Your task to perform on an android device: delete browsing data in the chrome app Image 0: 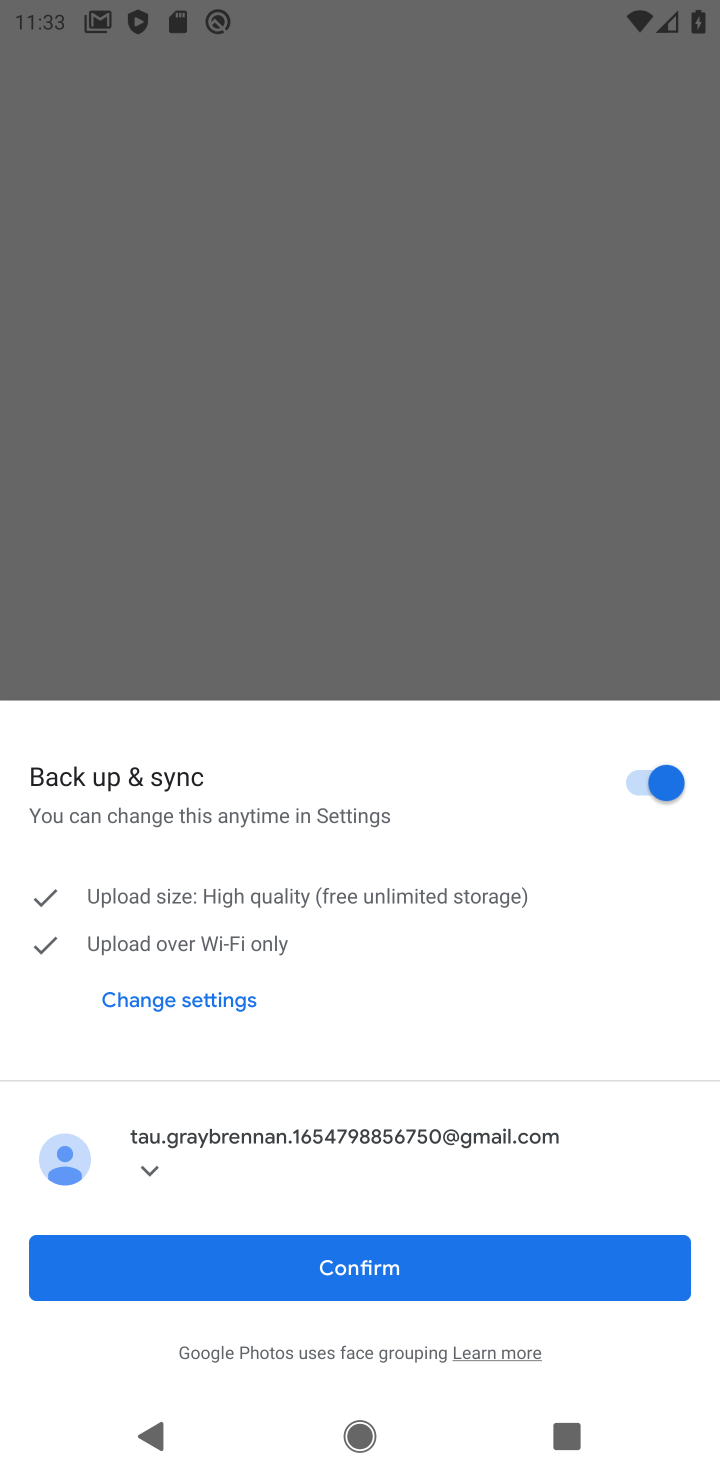
Step 0: press home button
Your task to perform on an android device: delete browsing data in the chrome app Image 1: 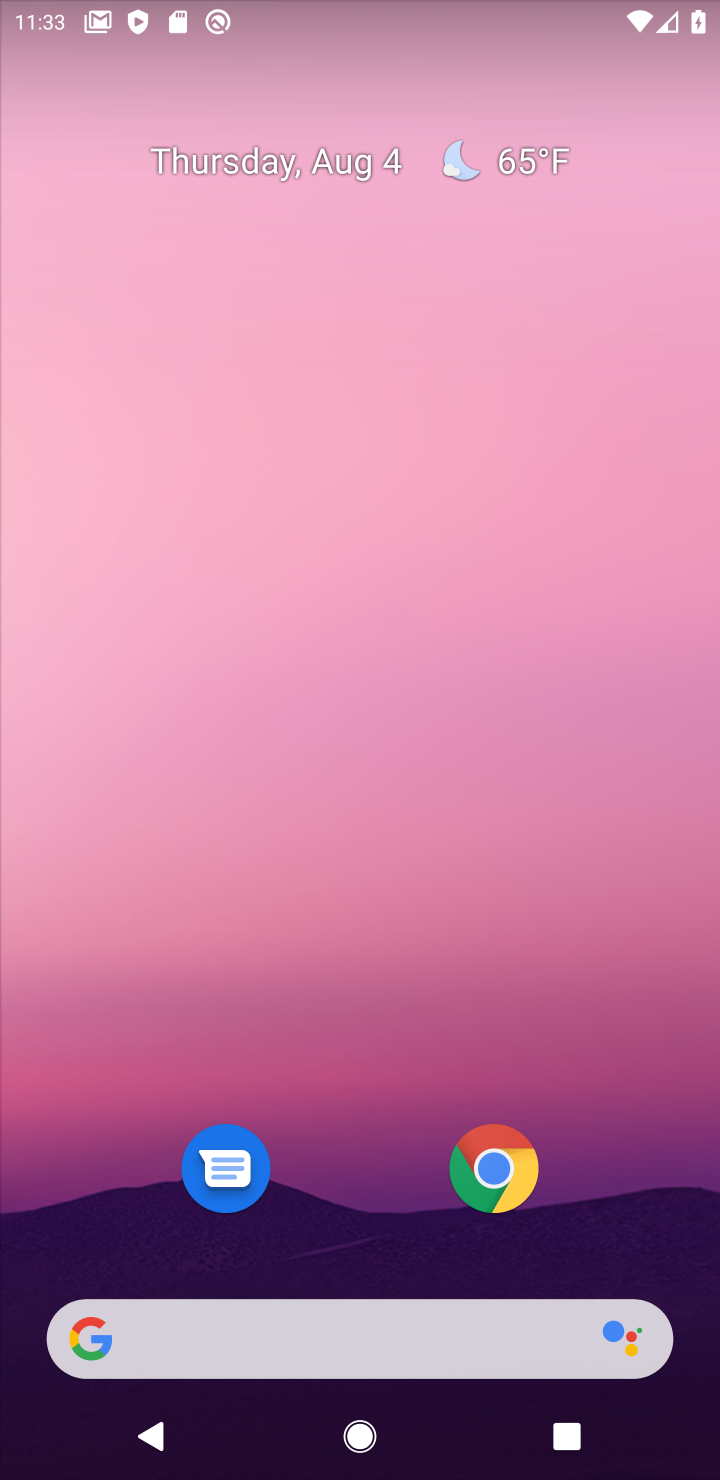
Step 1: click (498, 1172)
Your task to perform on an android device: delete browsing data in the chrome app Image 2: 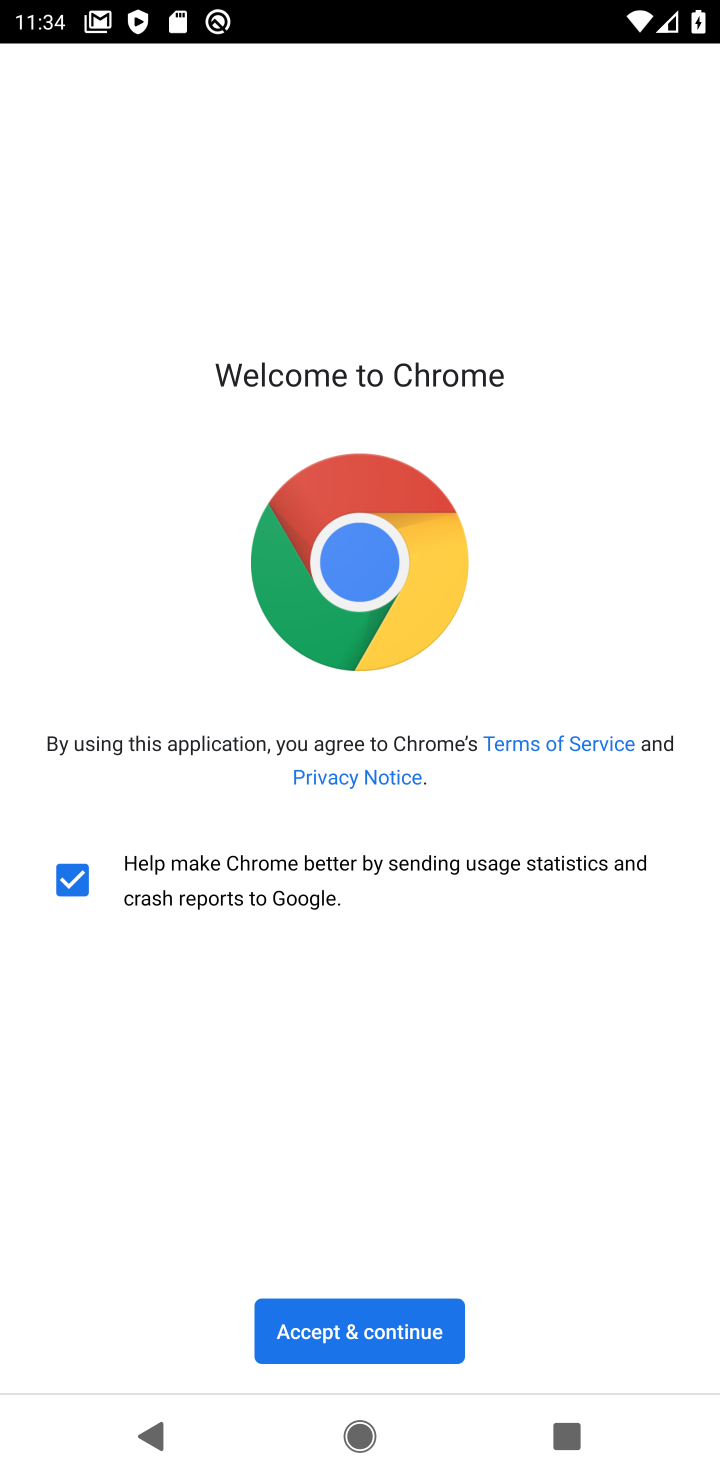
Step 2: click (411, 1338)
Your task to perform on an android device: delete browsing data in the chrome app Image 3: 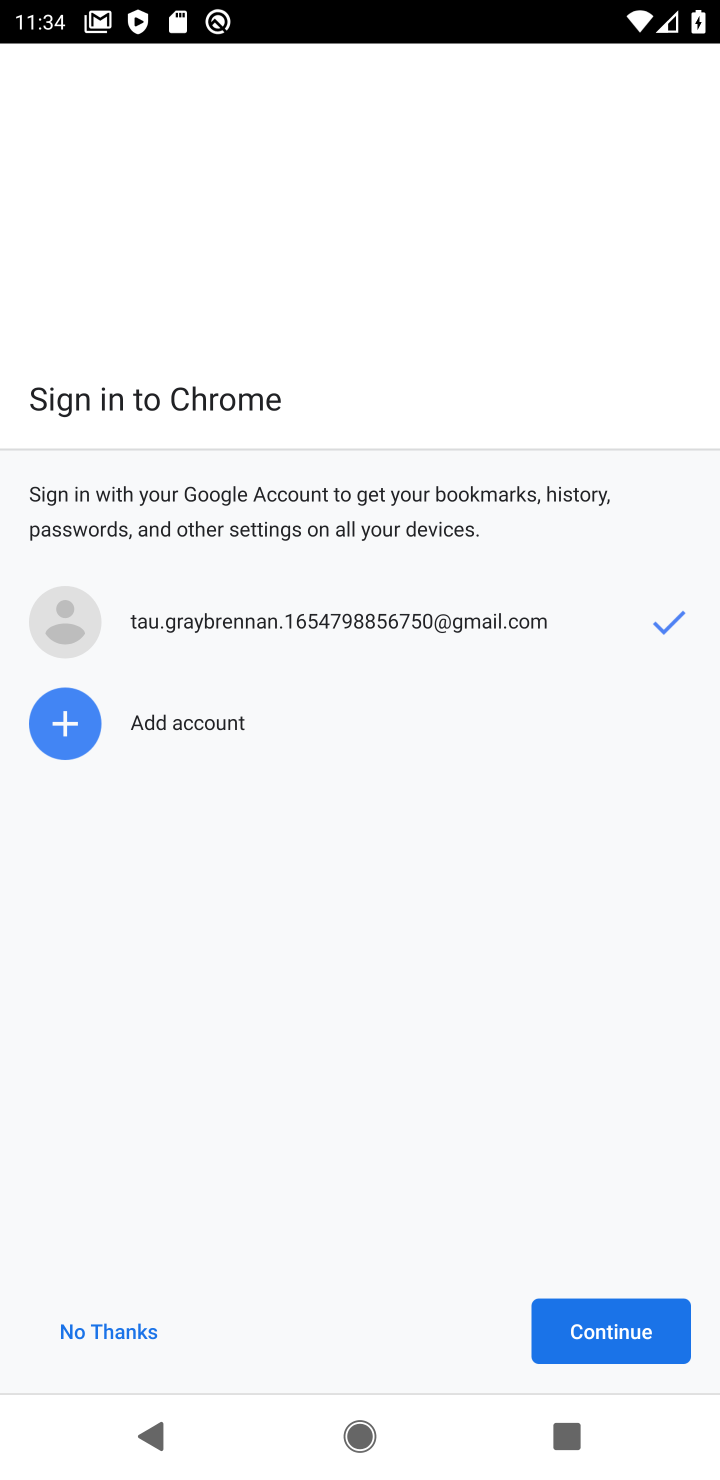
Step 3: click (675, 1339)
Your task to perform on an android device: delete browsing data in the chrome app Image 4: 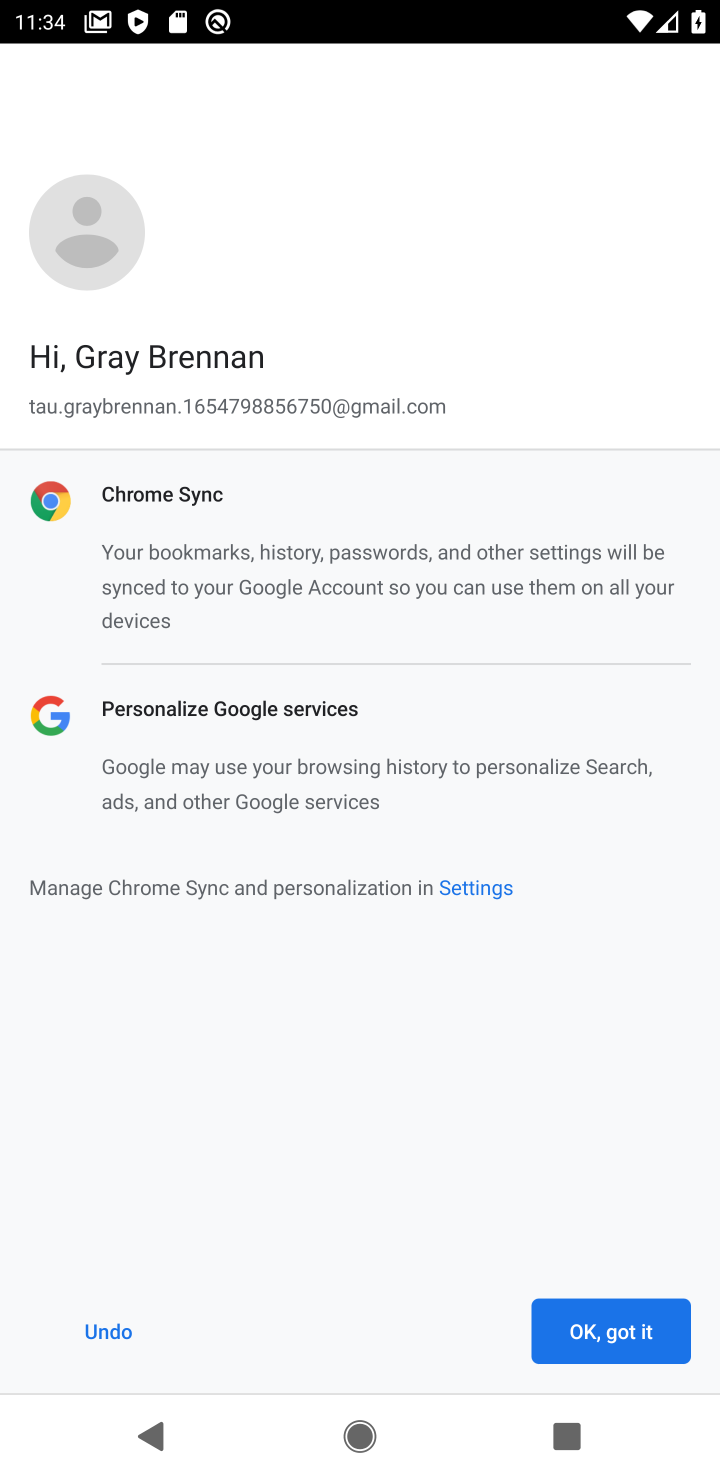
Step 4: click (614, 1341)
Your task to perform on an android device: delete browsing data in the chrome app Image 5: 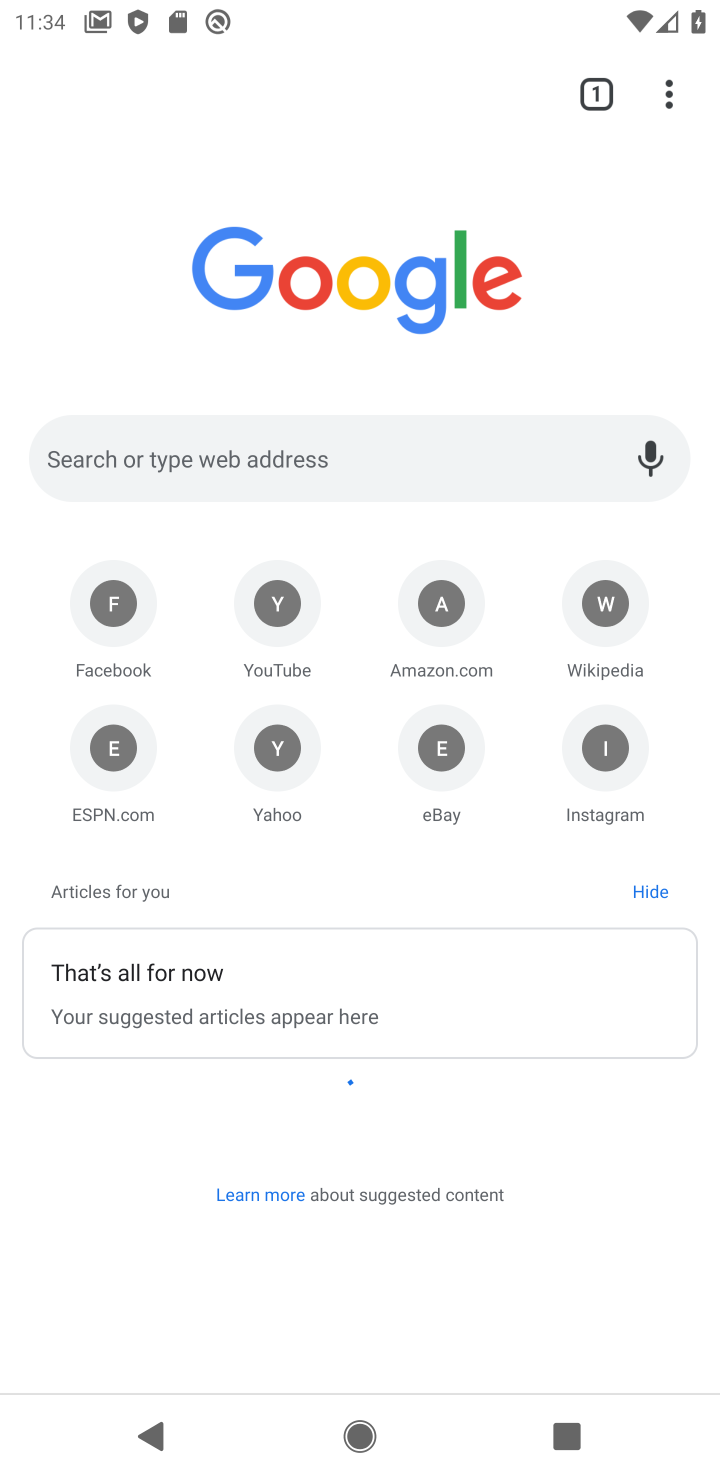
Step 5: click (661, 91)
Your task to perform on an android device: delete browsing data in the chrome app Image 6: 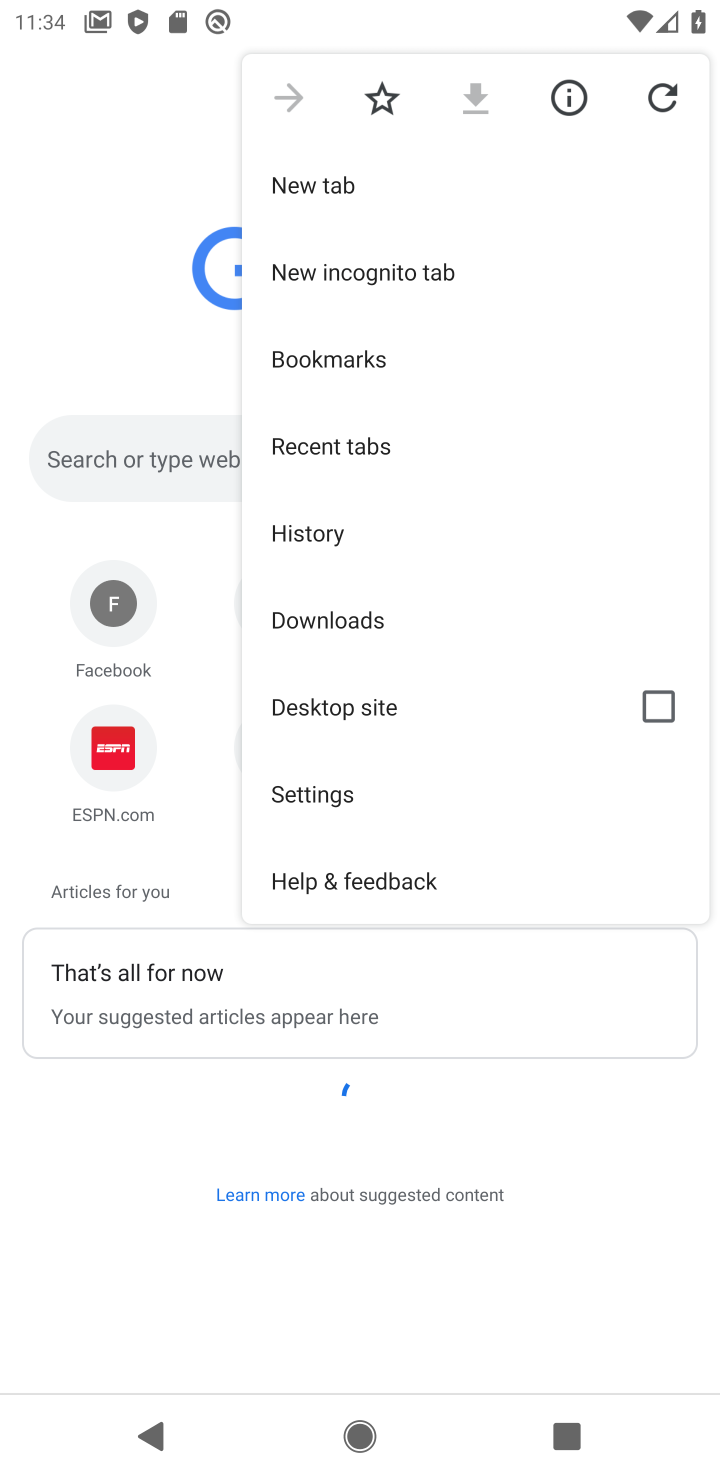
Step 6: click (312, 537)
Your task to perform on an android device: delete browsing data in the chrome app Image 7: 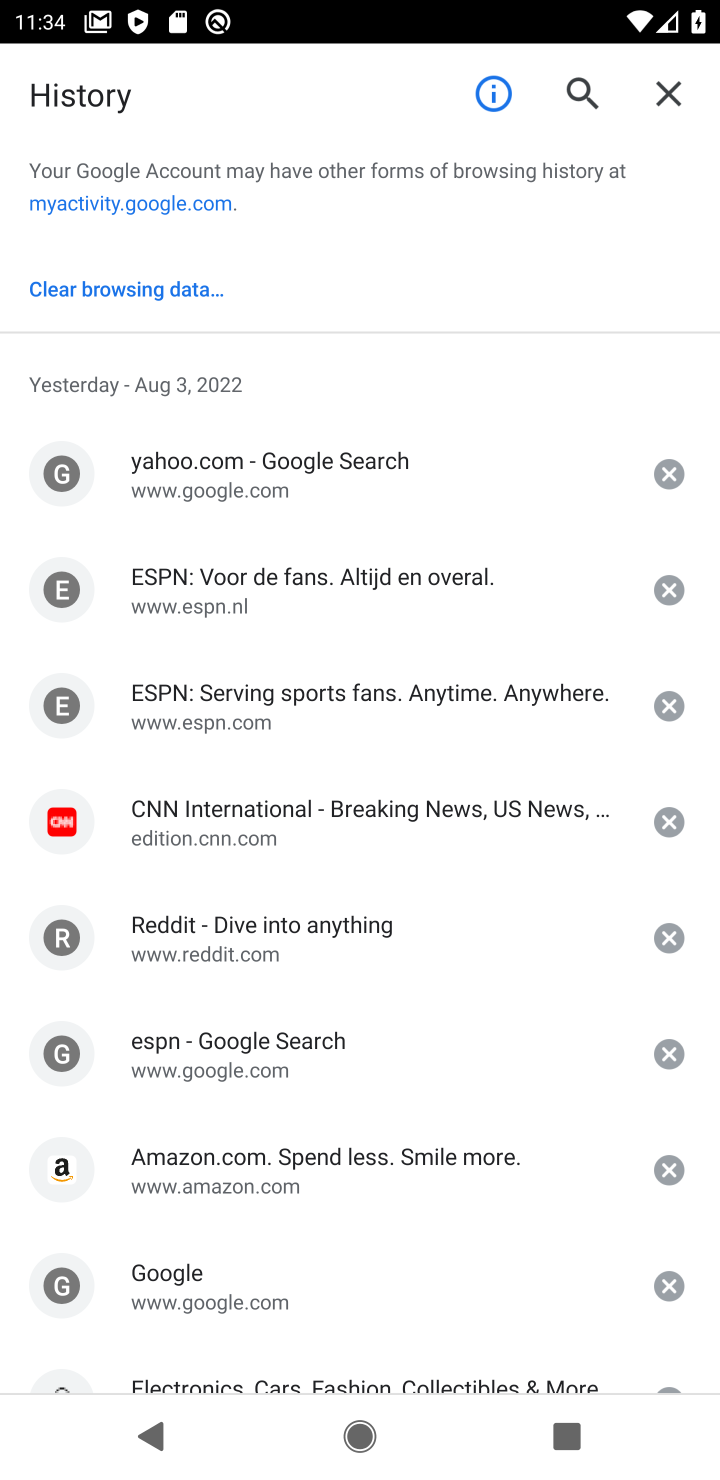
Step 7: click (138, 291)
Your task to perform on an android device: delete browsing data in the chrome app Image 8: 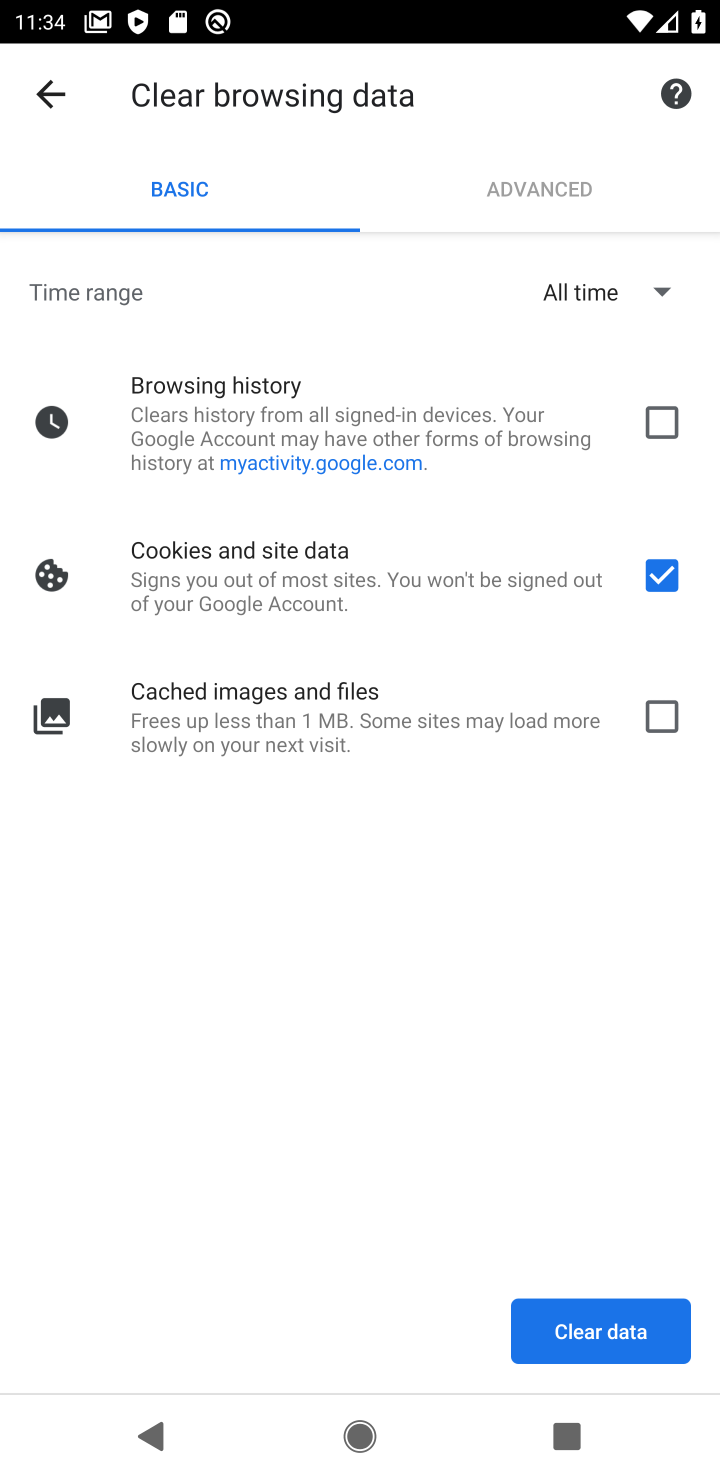
Step 8: click (665, 401)
Your task to perform on an android device: delete browsing data in the chrome app Image 9: 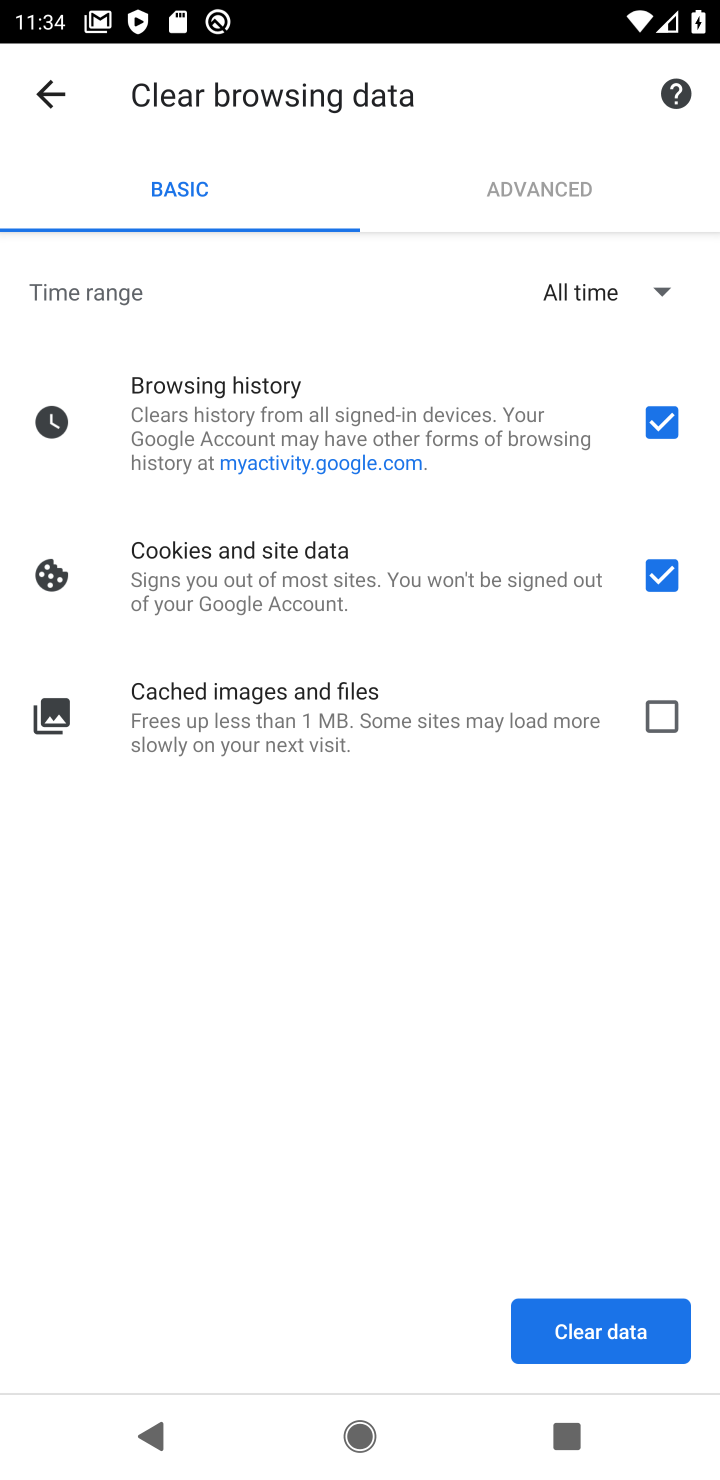
Step 9: click (660, 708)
Your task to perform on an android device: delete browsing data in the chrome app Image 10: 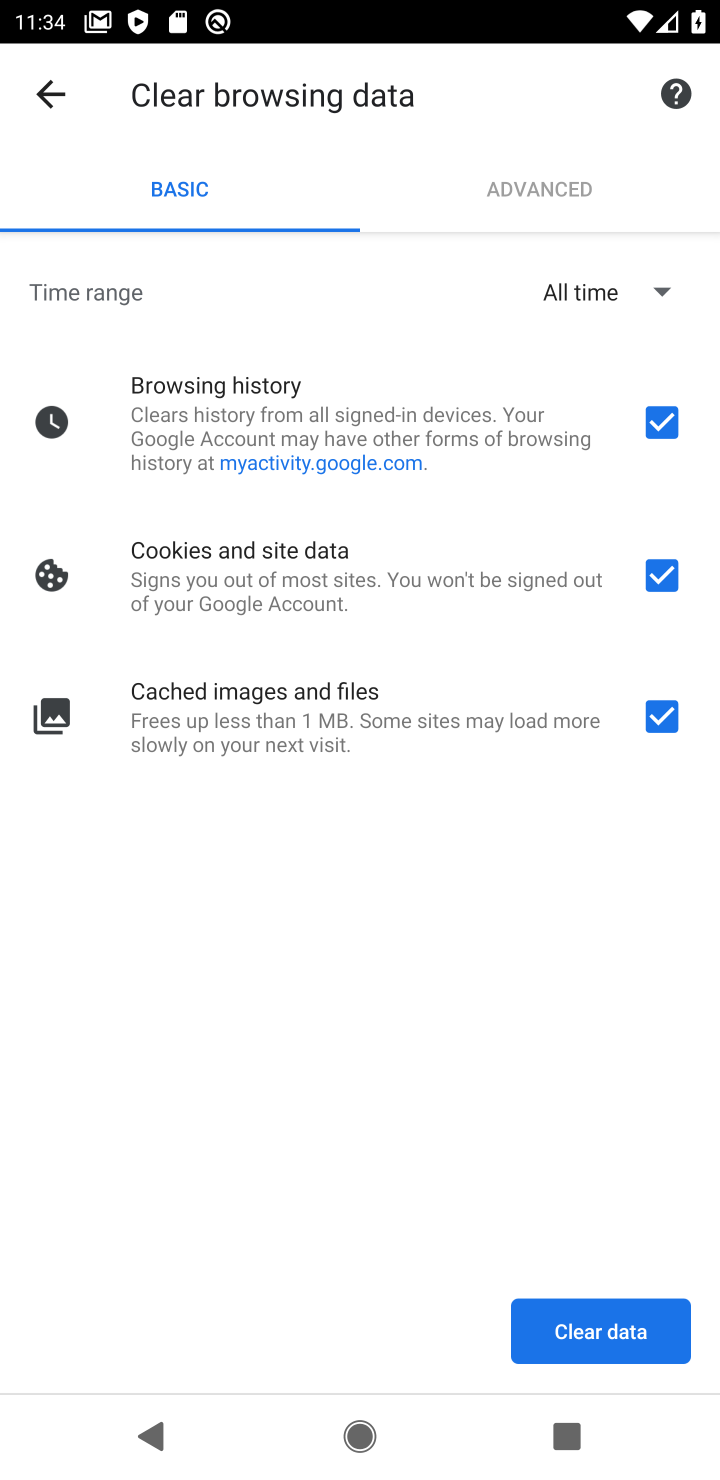
Step 10: click (615, 1310)
Your task to perform on an android device: delete browsing data in the chrome app Image 11: 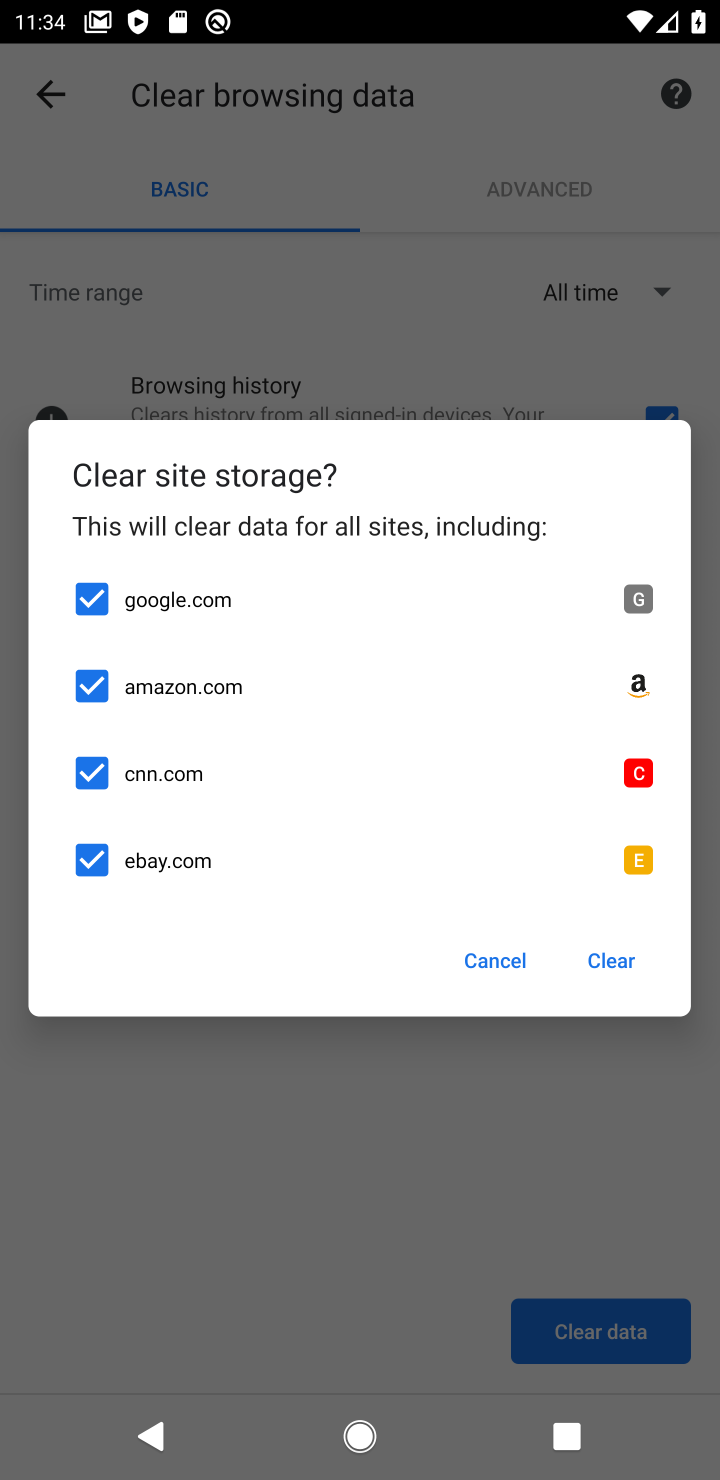
Step 11: click (628, 958)
Your task to perform on an android device: delete browsing data in the chrome app Image 12: 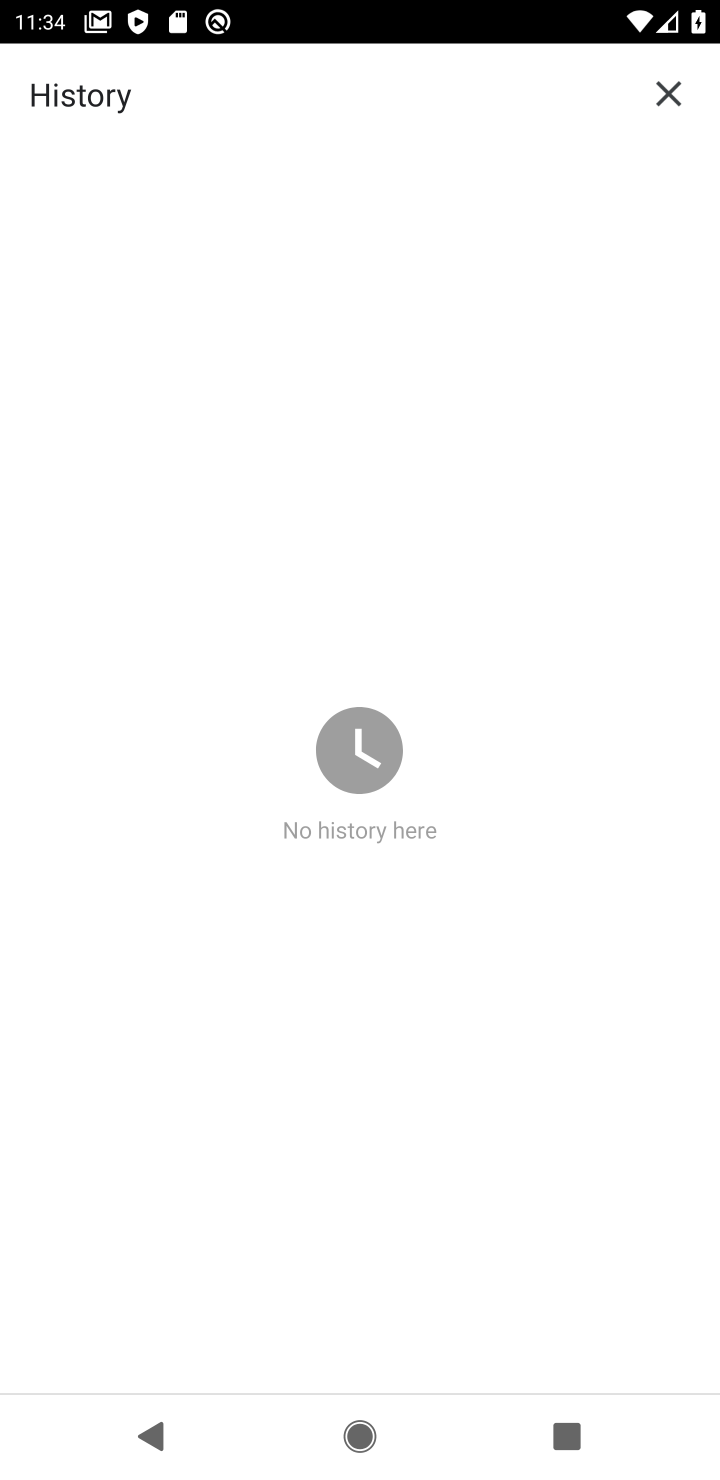
Step 12: task complete